Your task to perform on an android device: What is the recent news? Image 0: 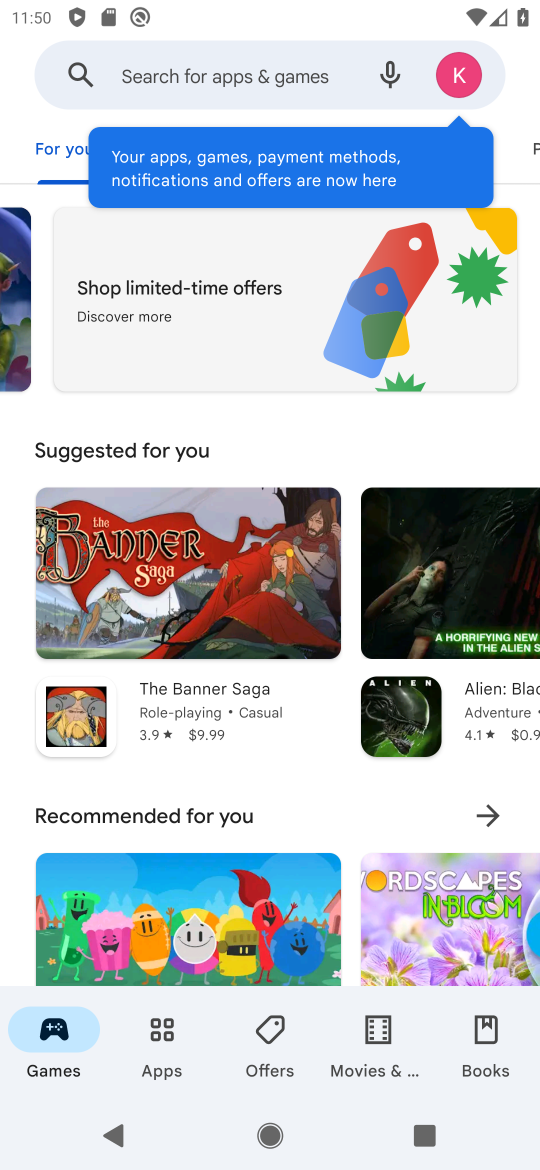
Step 0: press home button
Your task to perform on an android device: What is the recent news? Image 1: 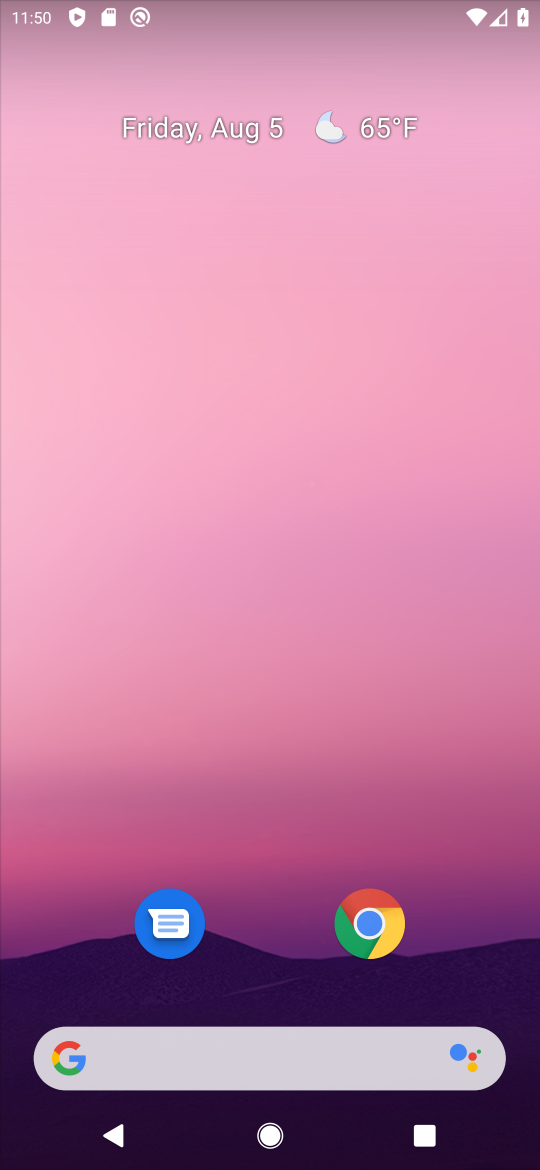
Step 1: click (378, 931)
Your task to perform on an android device: What is the recent news? Image 2: 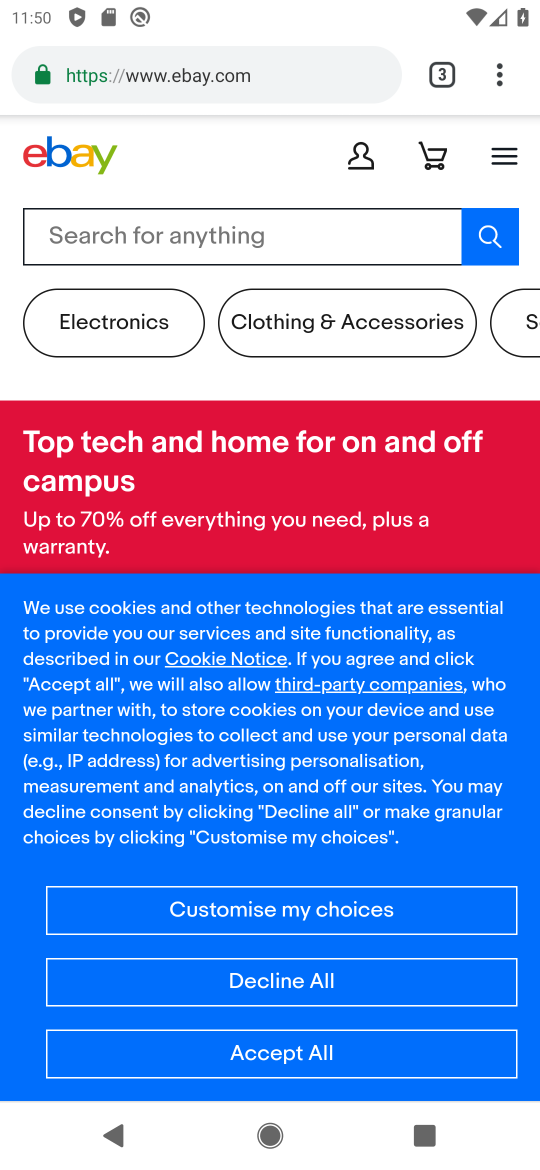
Step 2: click (345, 57)
Your task to perform on an android device: What is the recent news? Image 3: 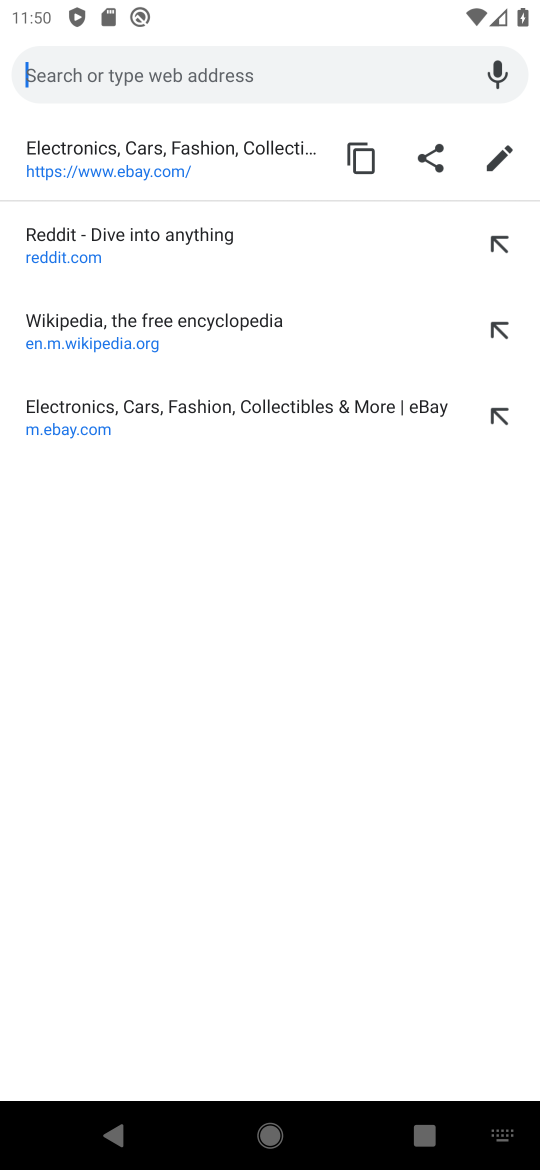
Step 3: type "What is the recent news?"
Your task to perform on an android device: What is the recent news? Image 4: 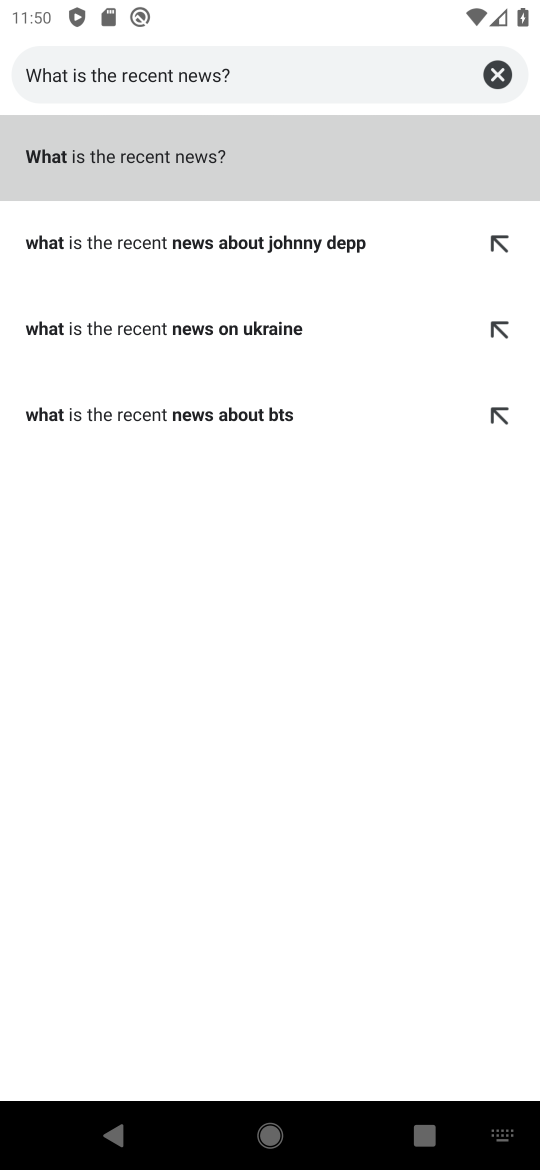
Step 4: click (261, 138)
Your task to perform on an android device: What is the recent news? Image 5: 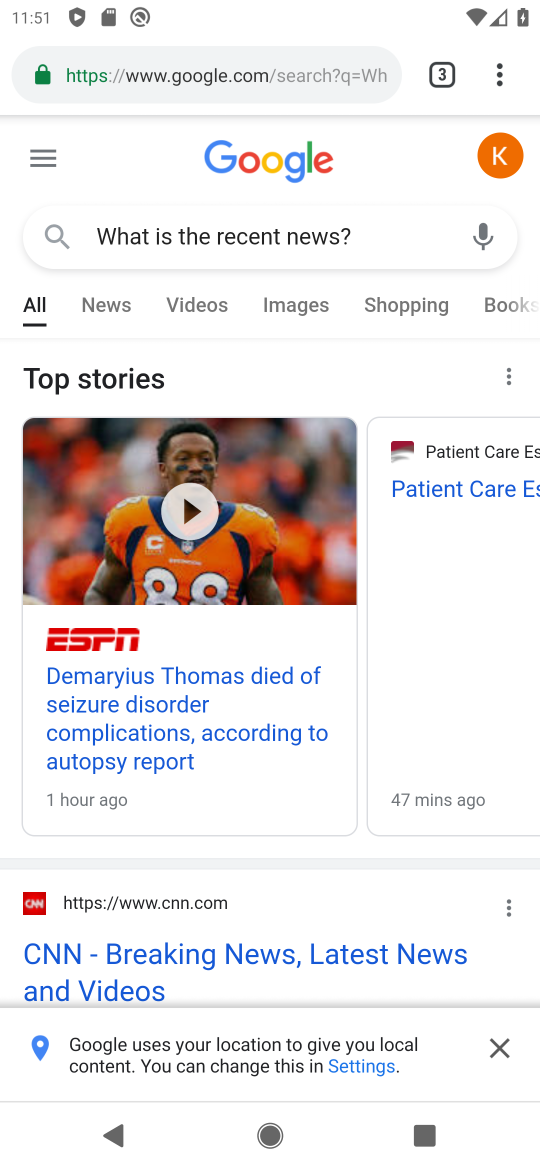
Step 5: task complete